Your task to perform on an android device: Open accessibility settings Image 0: 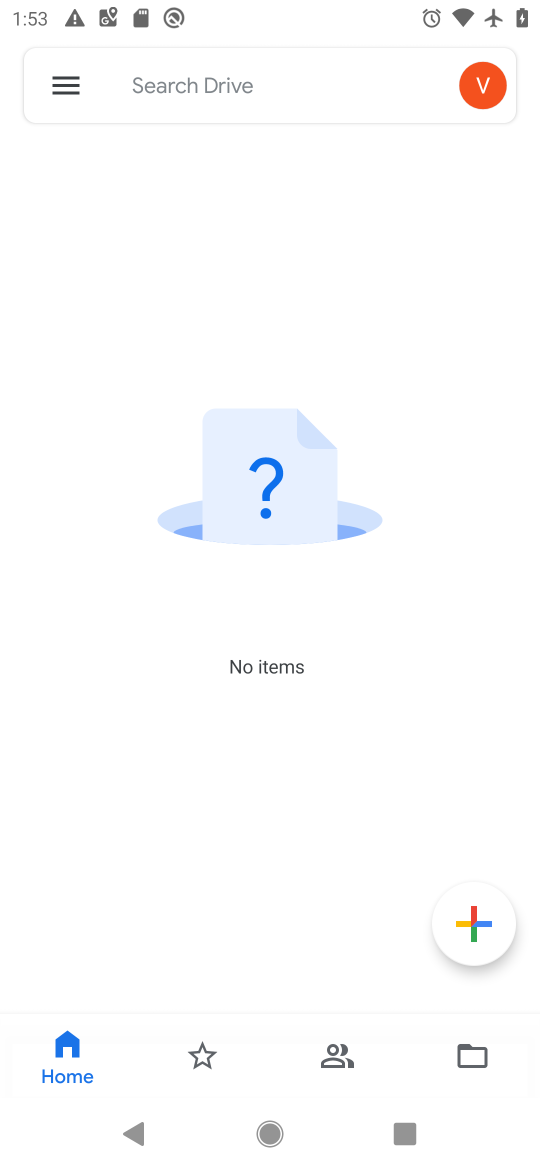
Step 0: press home button
Your task to perform on an android device: Open accessibility settings Image 1: 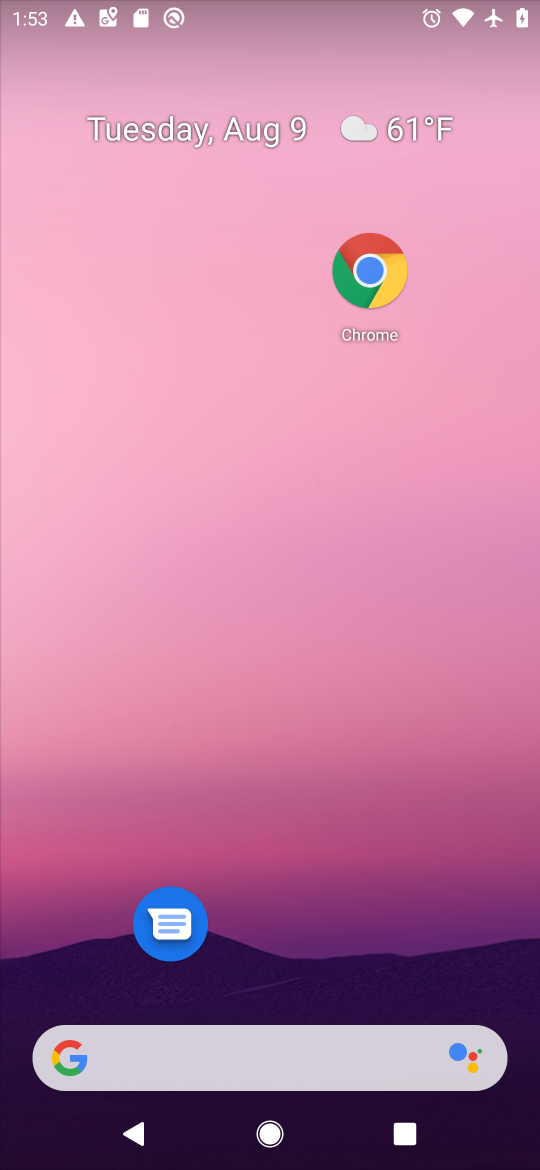
Step 1: drag from (365, 995) to (313, 154)
Your task to perform on an android device: Open accessibility settings Image 2: 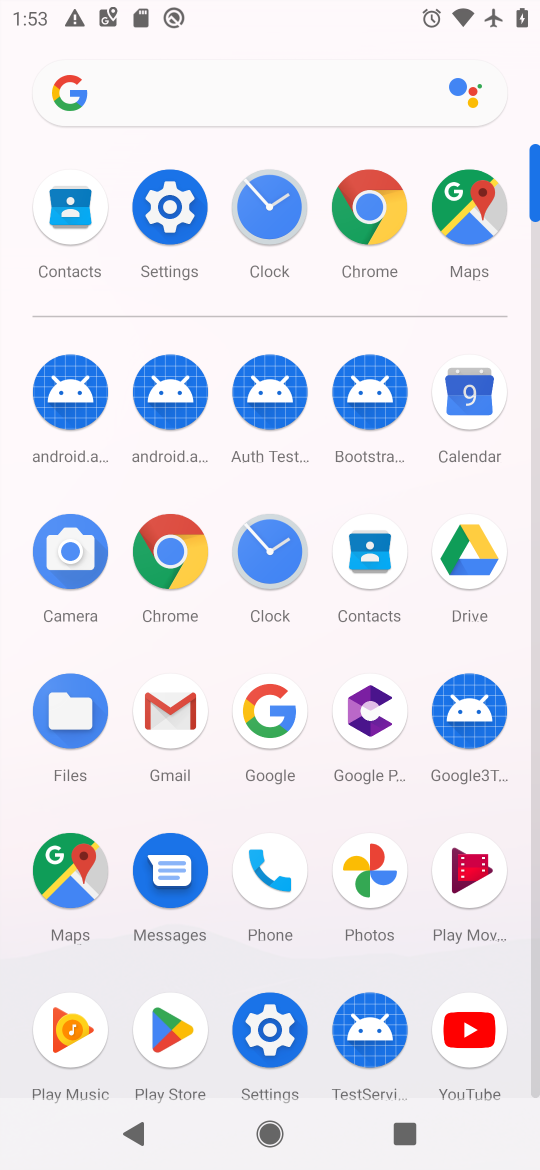
Step 2: click (184, 221)
Your task to perform on an android device: Open accessibility settings Image 3: 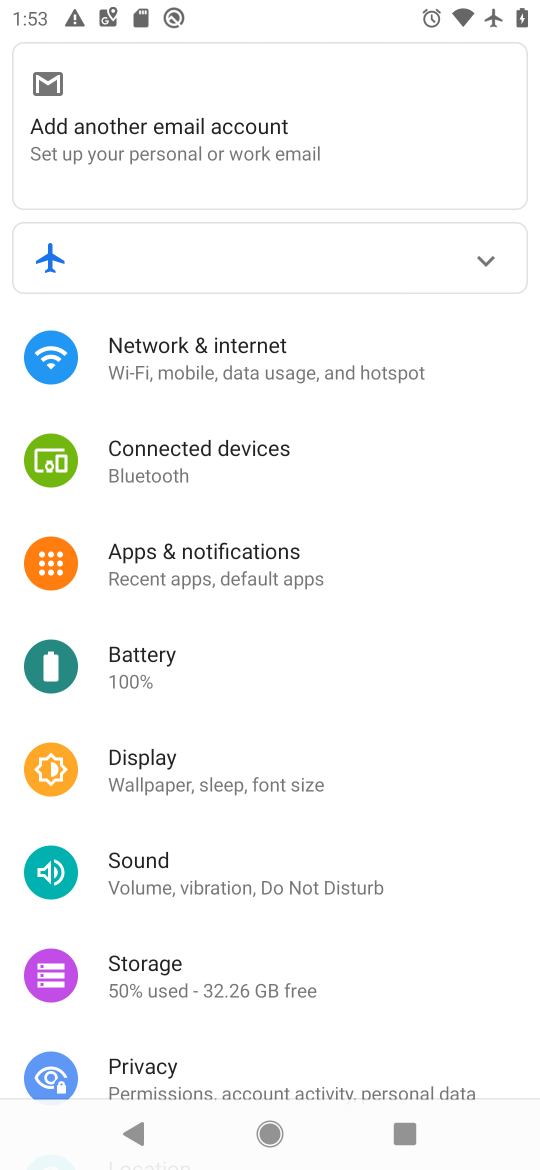
Step 3: drag from (282, 1014) to (256, 544)
Your task to perform on an android device: Open accessibility settings Image 4: 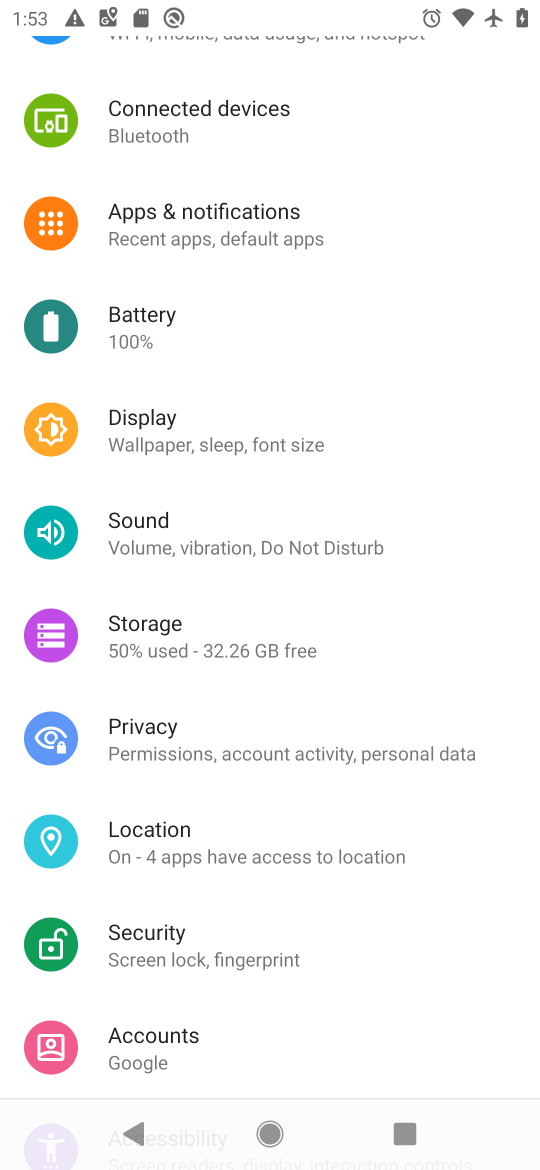
Step 4: drag from (235, 959) to (339, 264)
Your task to perform on an android device: Open accessibility settings Image 5: 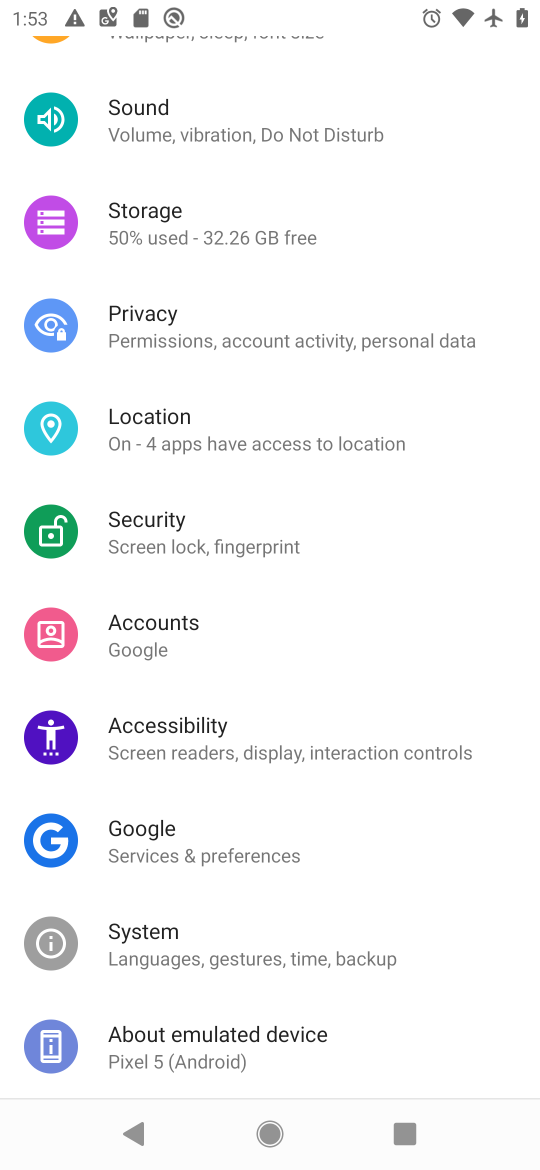
Step 5: click (256, 743)
Your task to perform on an android device: Open accessibility settings Image 6: 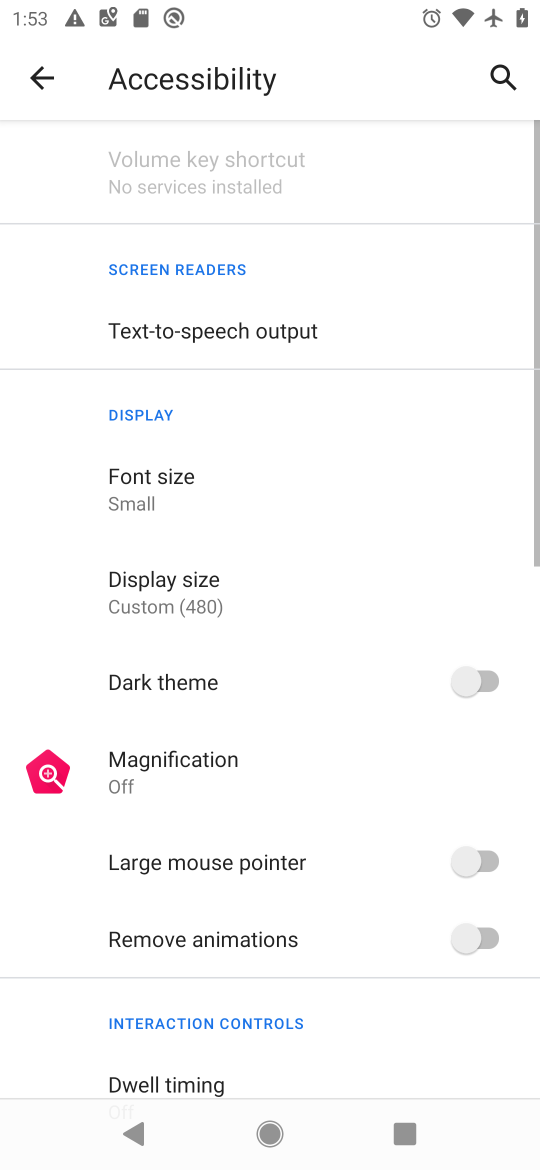
Step 6: task complete